Your task to perform on an android device: open sync settings in chrome Image 0: 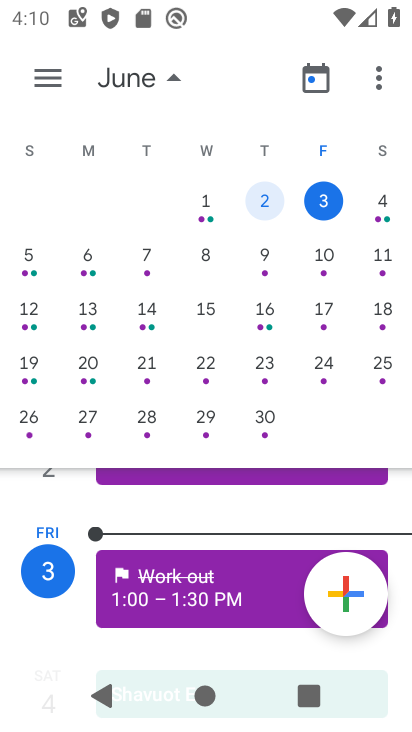
Step 0: press home button
Your task to perform on an android device: open sync settings in chrome Image 1: 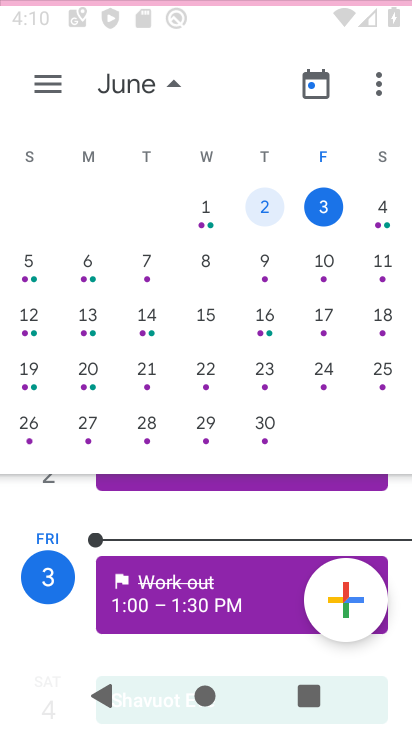
Step 1: drag from (220, 419) to (317, 10)
Your task to perform on an android device: open sync settings in chrome Image 2: 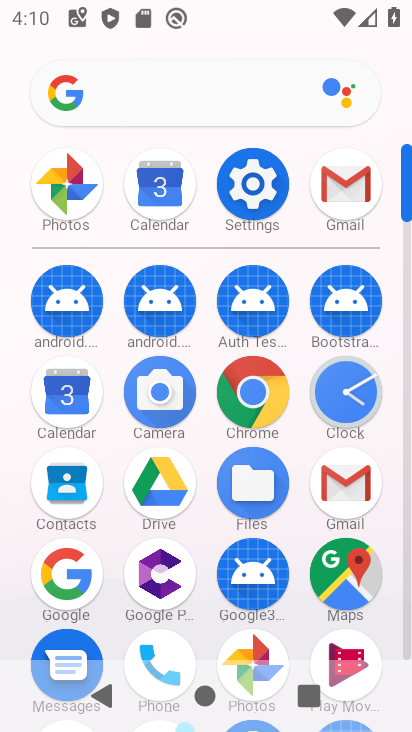
Step 2: click (242, 400)
Your task to perform on an android device: open sync settings in chrome Image 3: 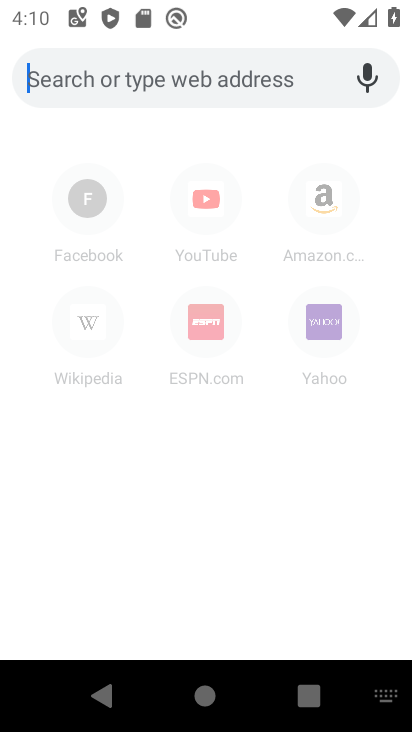
Step 3: click (282, 445)
Your task to perform on an android device: open sync settings in chrome Image 4: 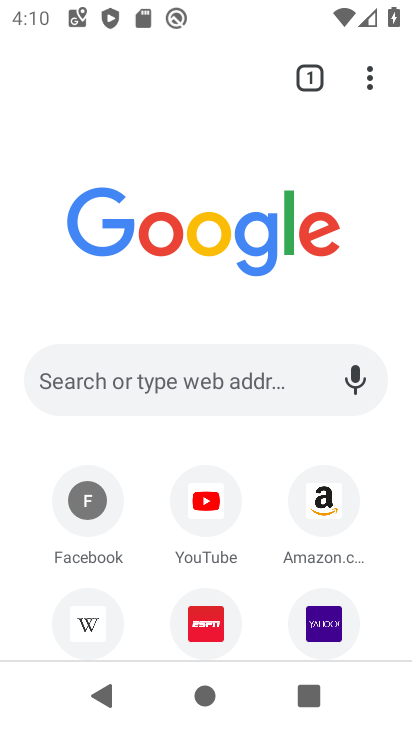
Step 4: click (363, 70)
Your task to perform on an android device: open sync settings in chrome Image 5: 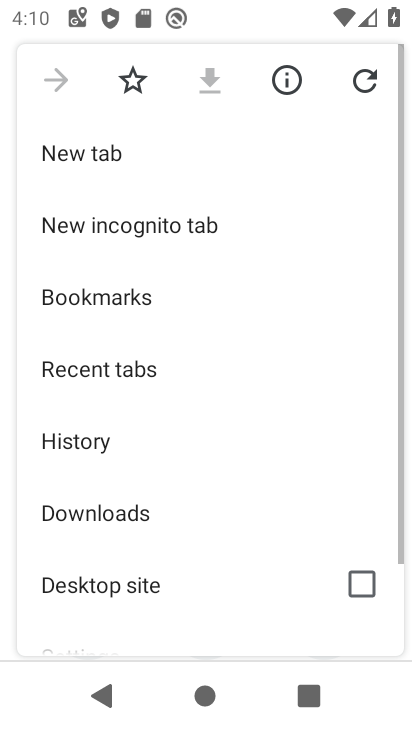
Step 5: drag from (159, 555) to (238, 5)
Your task to perform on an android device: open sync settings in chrome Image 6: 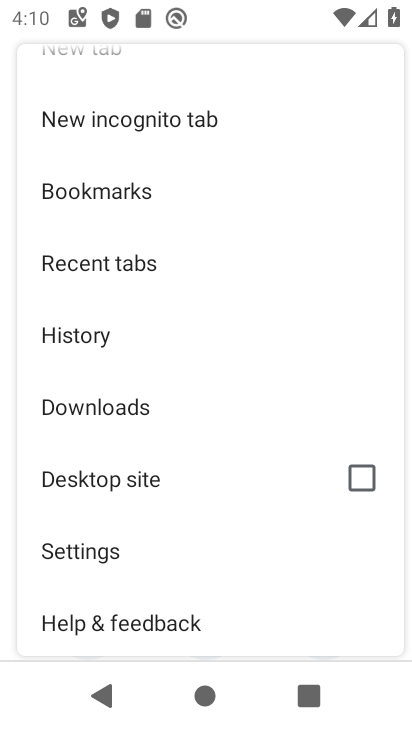
Step 6: click (114, 546)
Your task to perform on an android device: open sync settings in chrome Image 7: 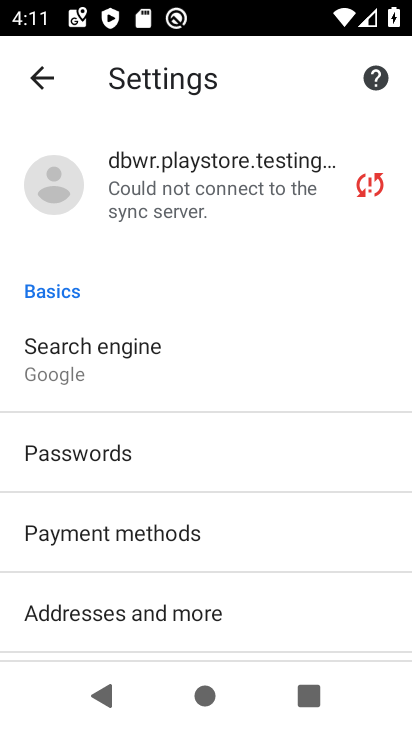
Step 7: drag from (183, 542) to (277, 67)
Your task to perform on an android device: open sync settings in chrome Image 8: 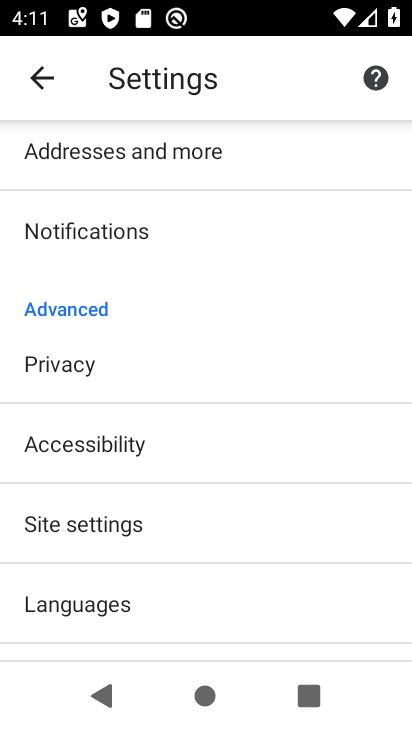
Step 8: drag from (152, 543) to (213, 257)
Your task to perform on an android device: open sync settings in chrome Image 9: 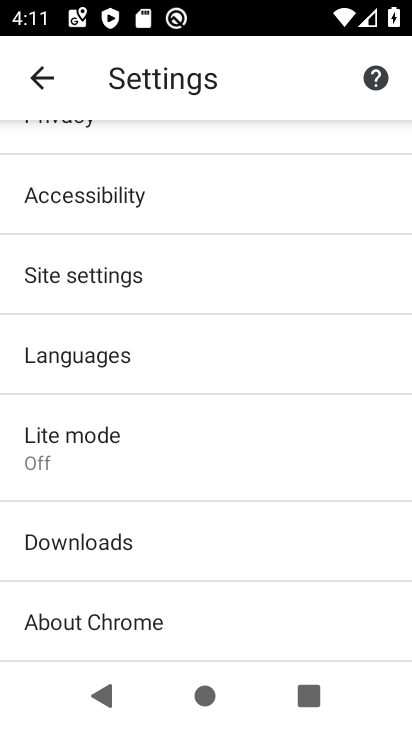
Step 9: click (141, 285)
Your task to perform on an android device: open sync settings in chrome Image 10: 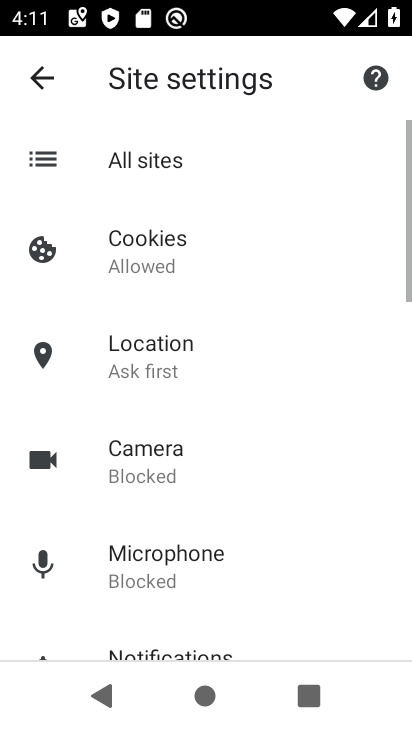
Step 10: drag from (206, 442) to (308, 106)
Your task to perform on an android device: open sync settings in chrome Image 11: 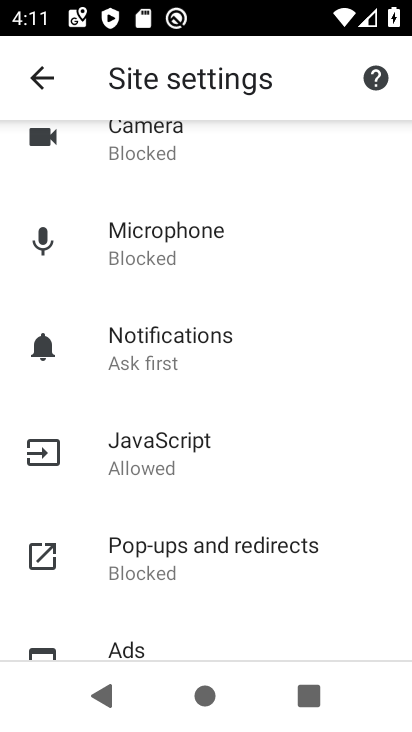
Step 11: drag from (188, 509) to (287, 136)
Your task to perform on an android device: open sync settings in chrome Image 12: 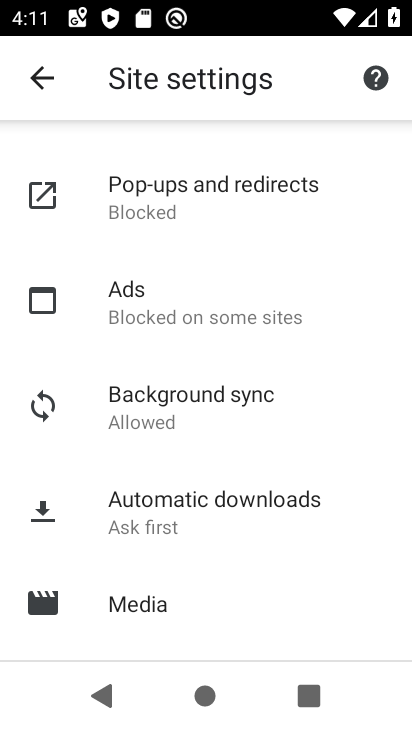
Step 12: click (183, 405)
Your task to perform on an android device: open sync settings in chrome Image 13: 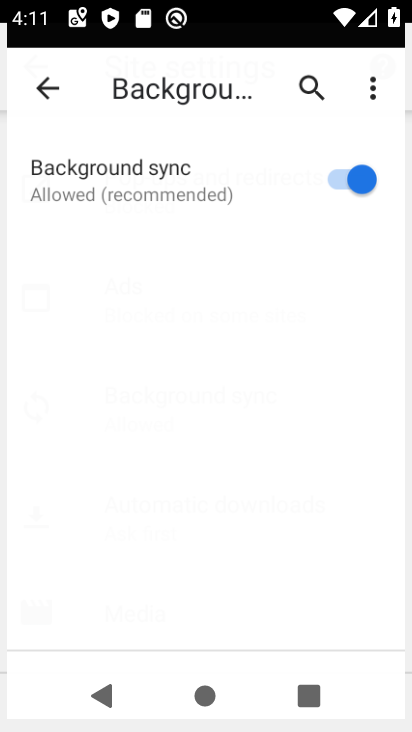
Step 13: task complete